Your task to perform on an android device: Do I have any events this weekend? Image 0: 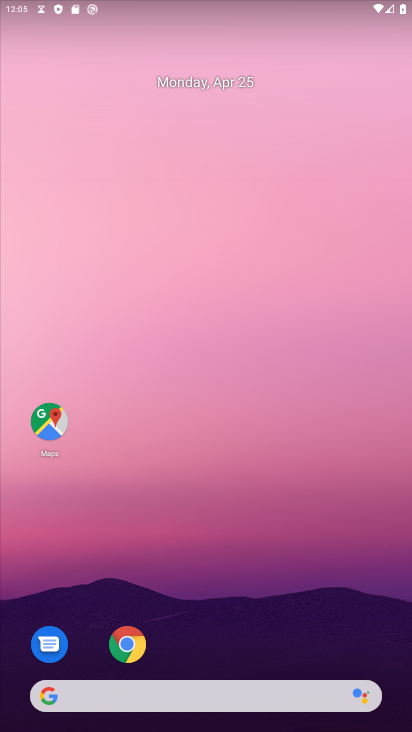
Step 0: drag from (337, 581) to (332, 21)
Your task to perform on an android device: Do I have any events this weekend? Image 1: 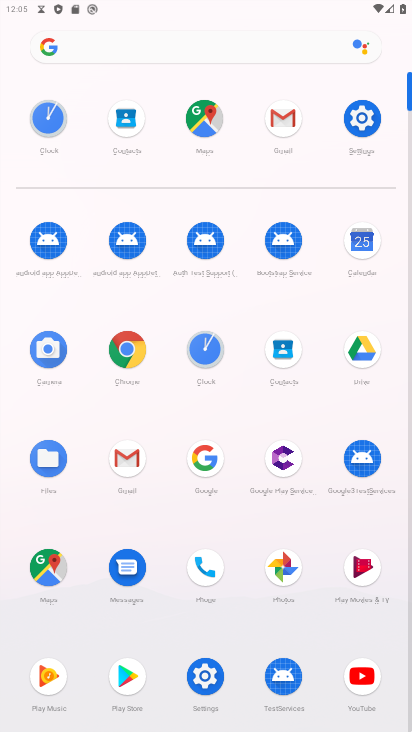
Step 1: click (359, 245)
Your task to perform on an android device: Do I have any events this weekend? Image 2: 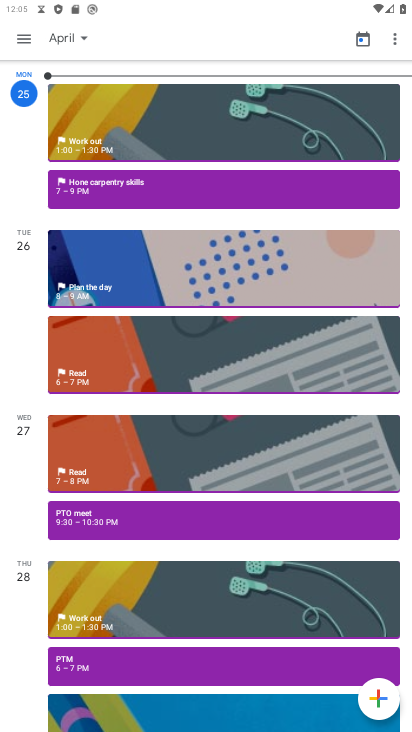
Step 2: click (86, 39)
Your task to perform on an android device: Do I have any events this weekend? Image 3: 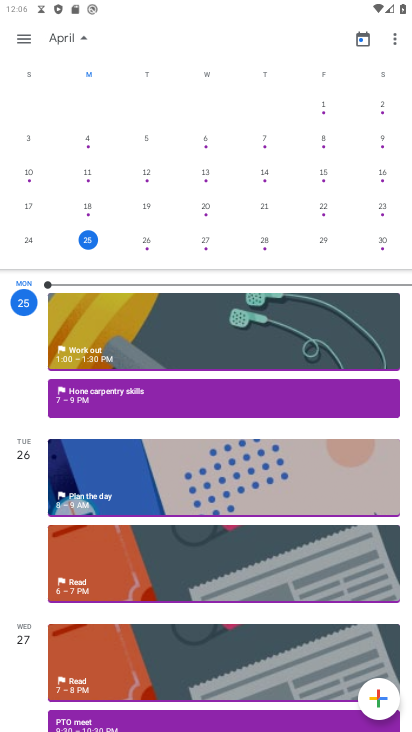
Step 3: drag from (239, 607) to (211, 278)
Your task to perform on an android device: Do I have any events this weekend? Image 4: 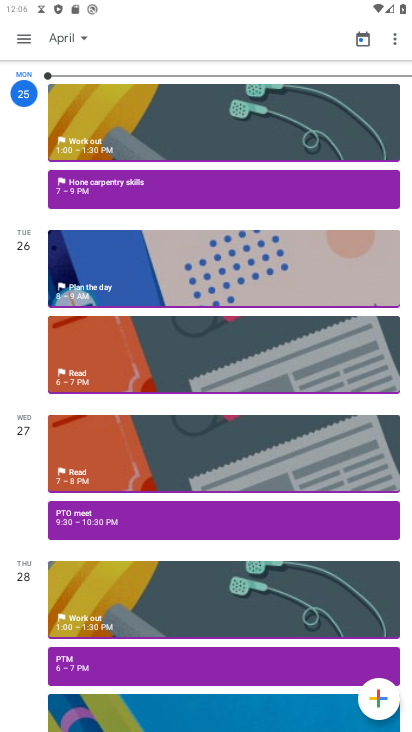
Step 4: drag from (273, 597) to (227, 292)
Your task to perform on an android device: Do I have any events this weekend? Image 5: 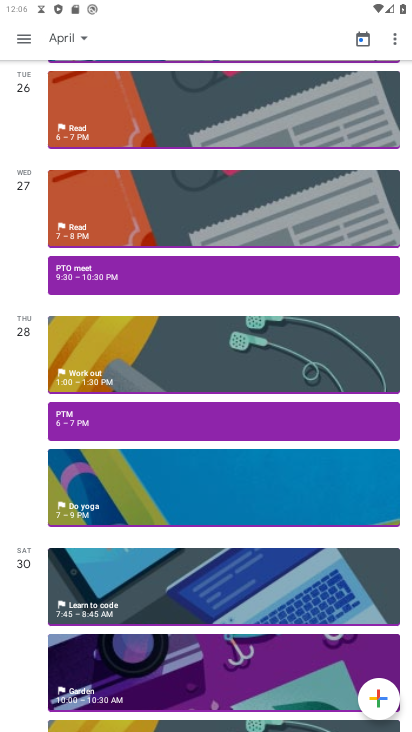
Step 5: click (87, 36)
Your task to perform on an android device: Do I have any events this weekend? Image 6: 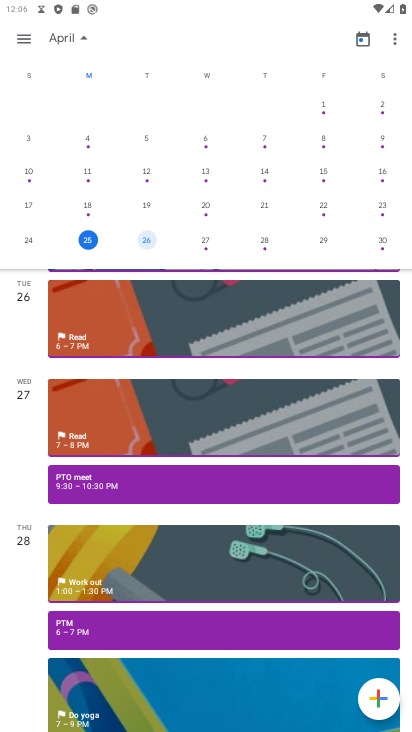
Step 6: click (381, 246)
Your task to perform on an android device: Do I have any events this weekend? Image 7: 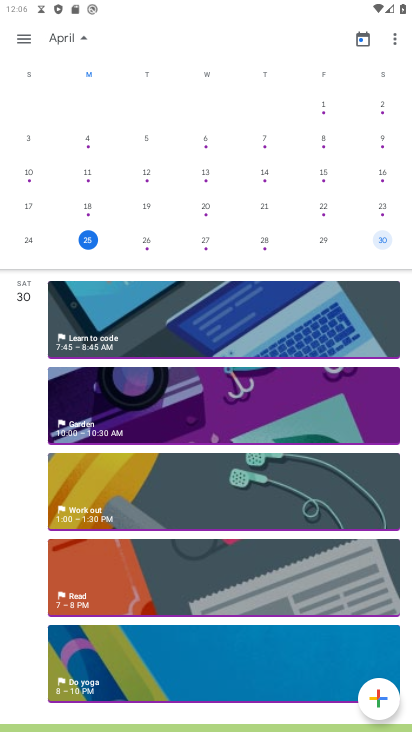
Step 7: click (178, 391)
Your task to perform on an android device: Do I have any events this weekend? Image 8: 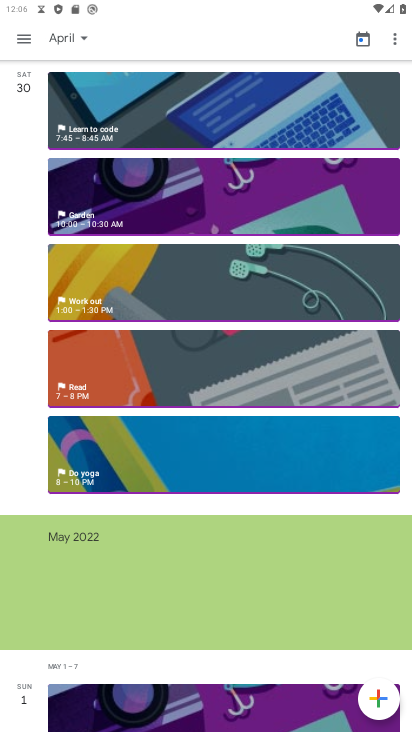
Step 8: click (169, 199)
Your task to perform on an android device: Do I have any events this weekend? Image 9: 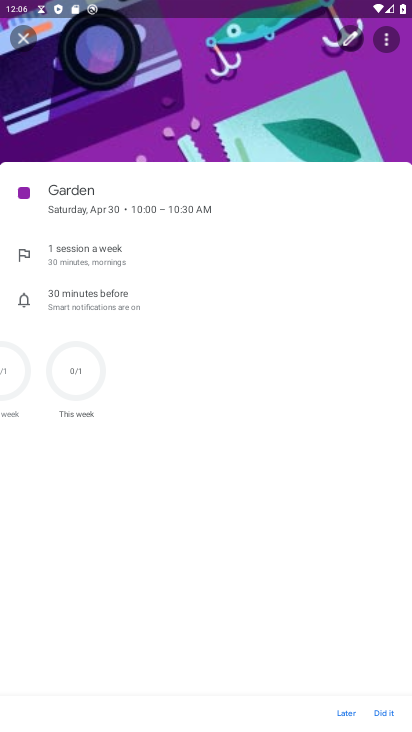
Step 9: task complete